Your task to perform on an android device: Go to CNN.com Image 0: 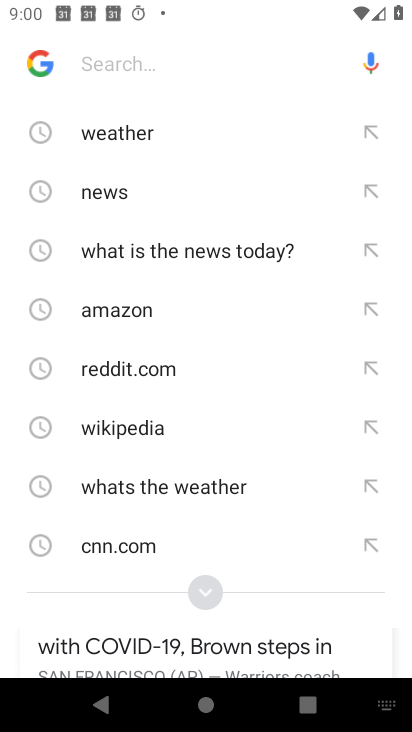
Step 0: press home button
Your task to perform on an android device: Go to CNN.com Image 1: 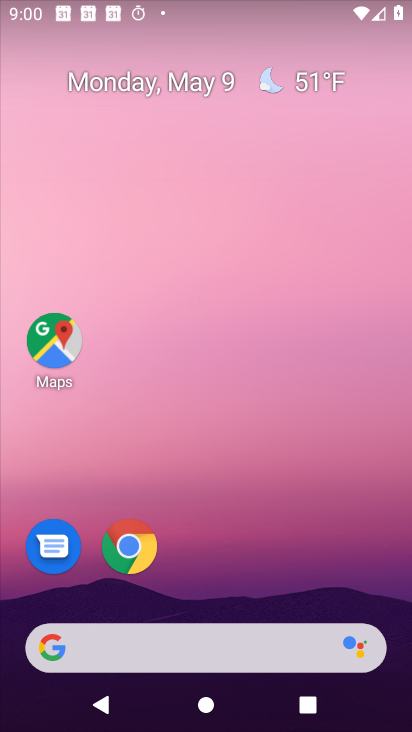
Step 1: click (119, 543)
Your task to perform on an android device: Go to CNN.com Image 2: 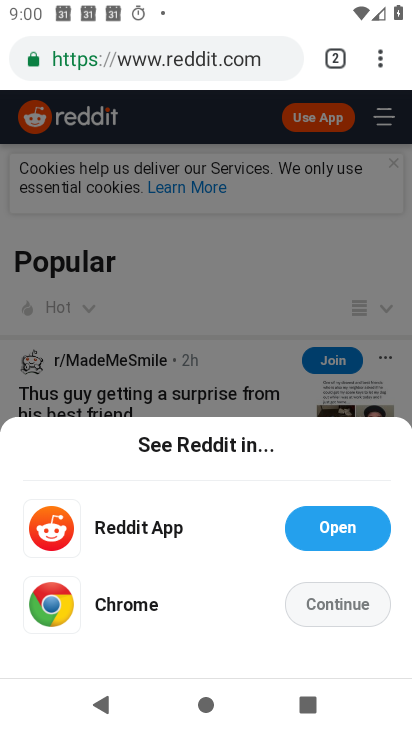
Step 2: click (273, 52)
Your task to perform on an android device: Go to CNN.com Image 3: 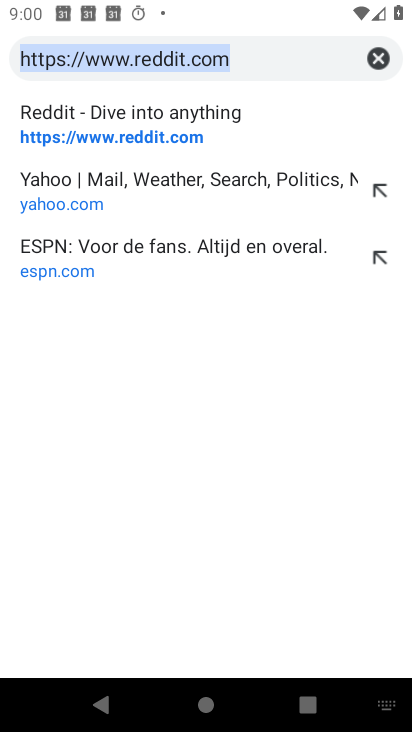
Step 3: click (385, 58)
Your task to perform on an android device: Go to CNN.com Image 4: 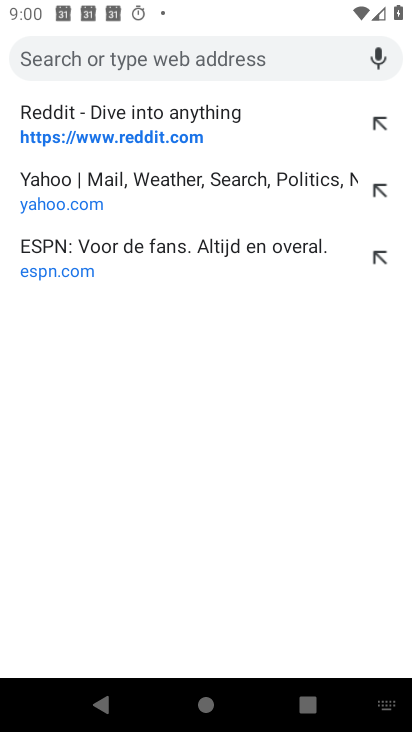
Step 4: type " CNN.com"
Your task to perform on an android device: Go to CNN.com Image 5: 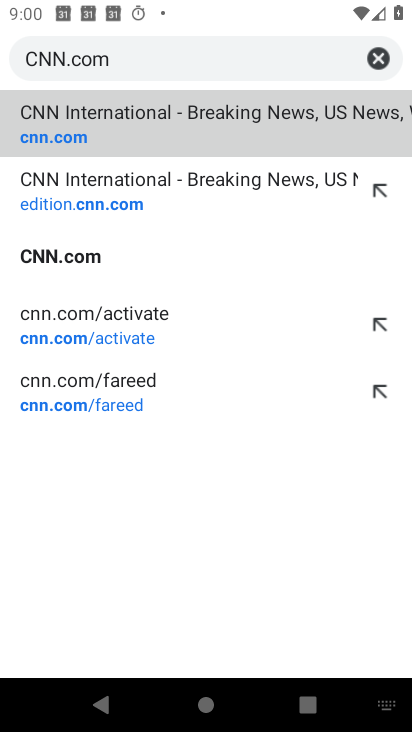
Step 5: click (24, 137)
Your task to perform on an android device: Go to CNN.com Image 6: 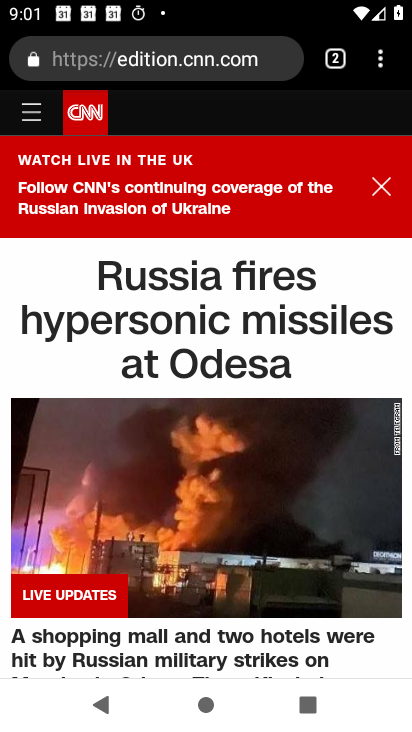
Step 6: task complete